Your task to perform on an android device: set an alarm Image 0: 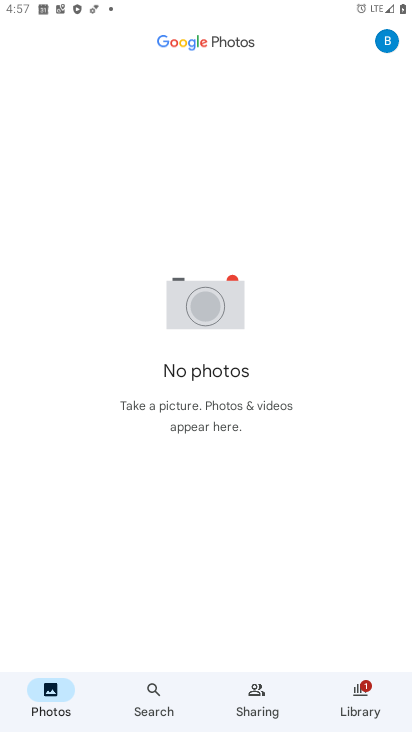
Step 0: press home button
Your task to perform on an android device: set an alarm Image 1: 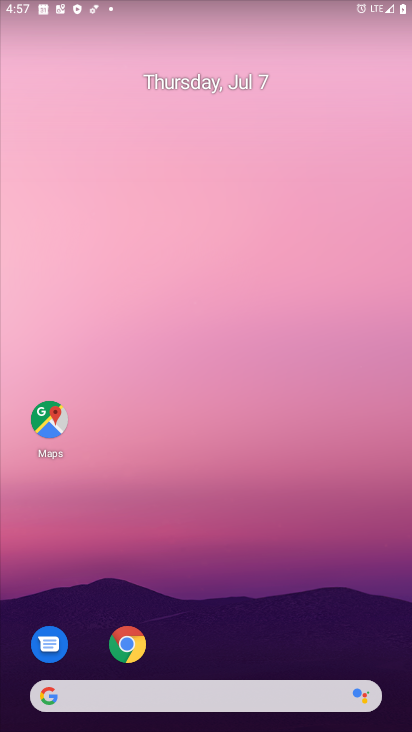
Step 1: drag from (210, 636) to (238, 126)
Your task to perform on an android device: set an alarm Image 2: 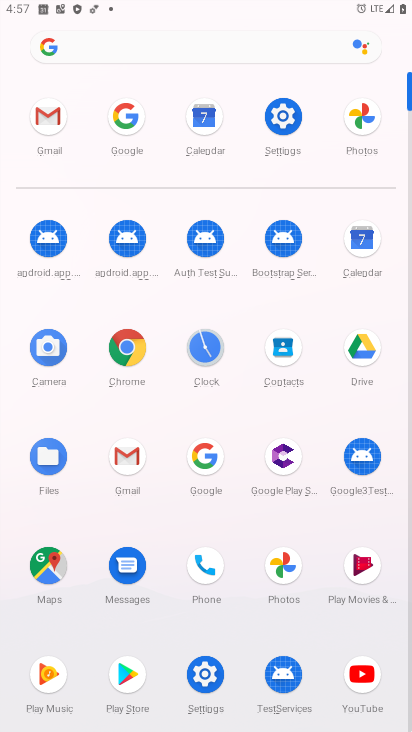
Step 2: click (205, 349)
Your task to perform on an android device: set an alarm Image 3: 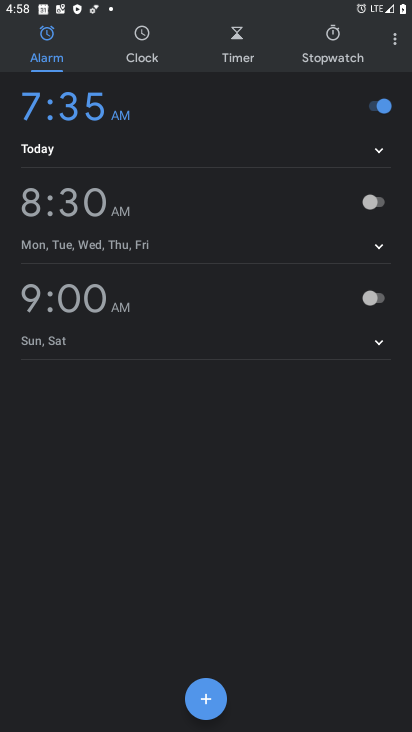
Step 3: click (207, 698)
Your task to perform on an android device: set an alarm Image 4: 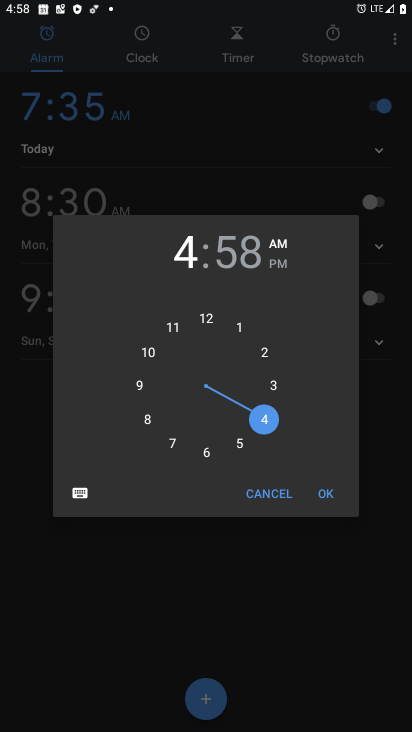
Step 4: click (153, 426)
Your task to perform on an android device: set an alarm Image 5: 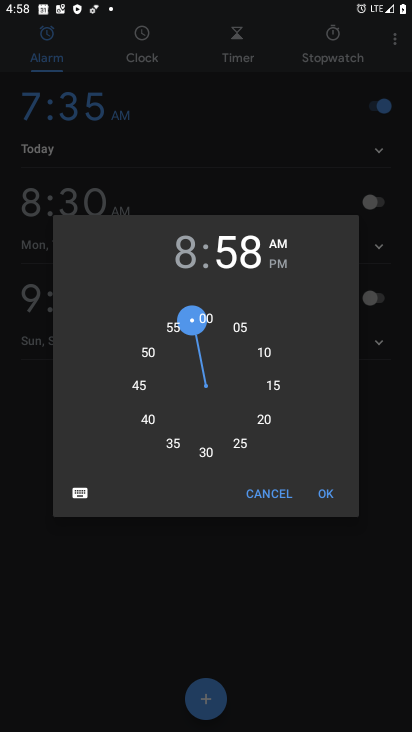
Step 5: click (199, 452)
Your task to perform on an android device: set an alarm Image 6: 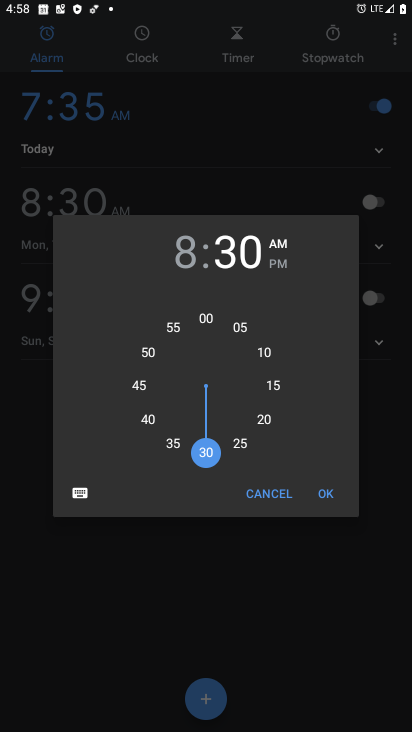
Step 6: click (319, 497)
Your task to perform on an android device: set an alarm Image 7: 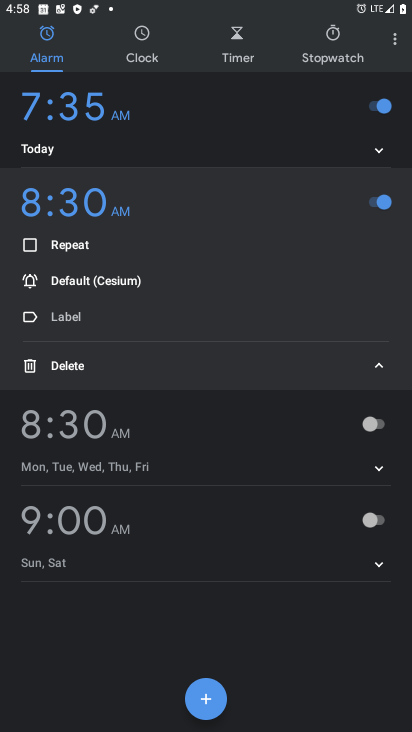
Step 7: click (377, 374)
Your task to perform on an android device: set an alarm Image 8: 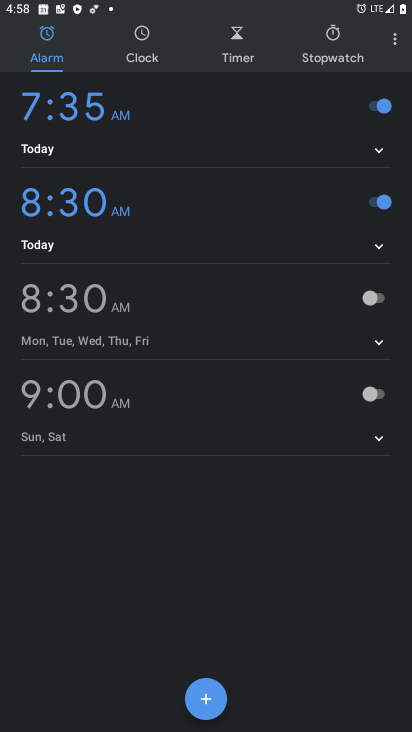
Step 8: task complete